Your task to perform on an android device: Do I have any events this weekend? Image 0: 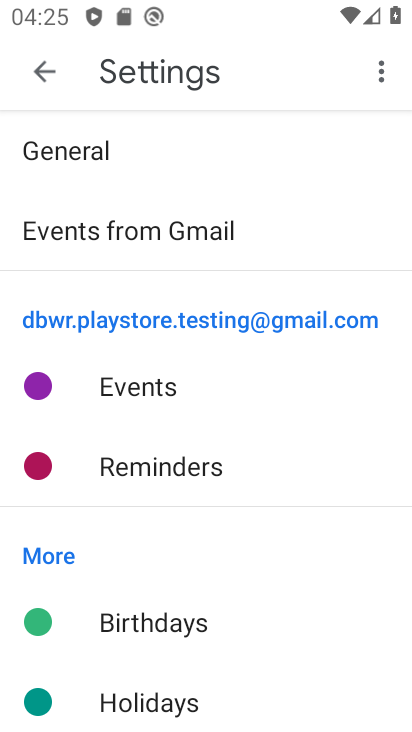
Step 0: press home button
Your task to perform on an android device: Do I have any events this weekend? Image 1: 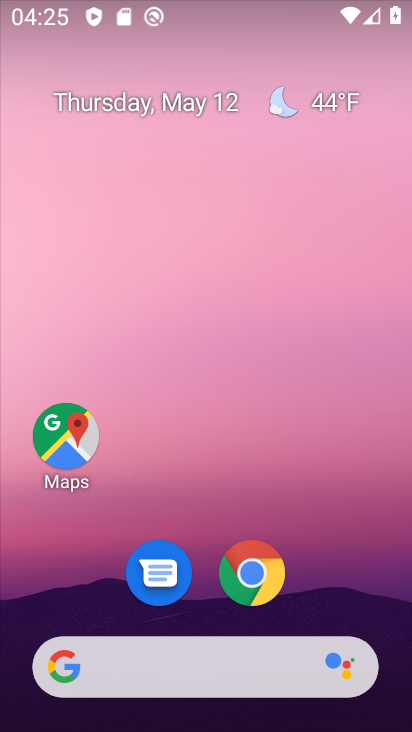
Step 1: click (388, 619)
Your task to perform on an android device: Do I have any events this weekend? Image 2: 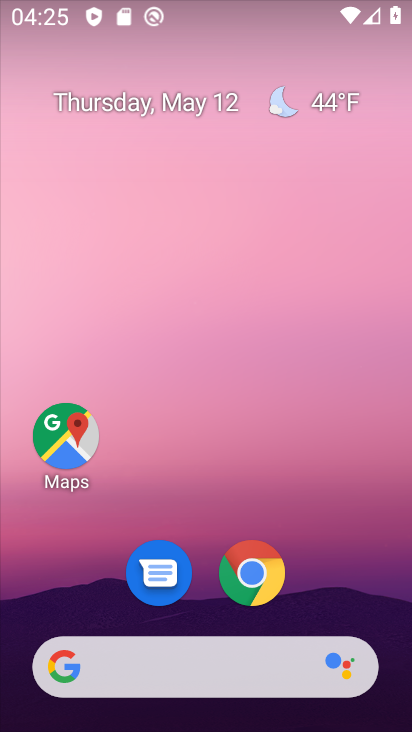
Step 2: drag from (388, 619) to (299, 78)
Your task to perform on an android device: Do I have any events this weekend? Image 3: 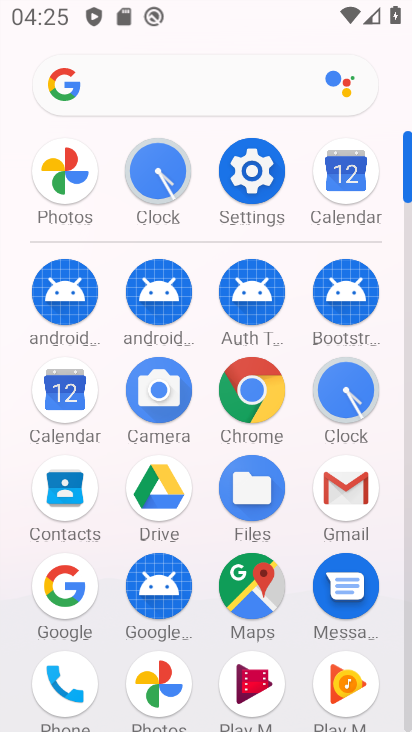
Step 3: click (65, 394)
Your task to perform on an android device: Do I have any events this weekend? Image 4: 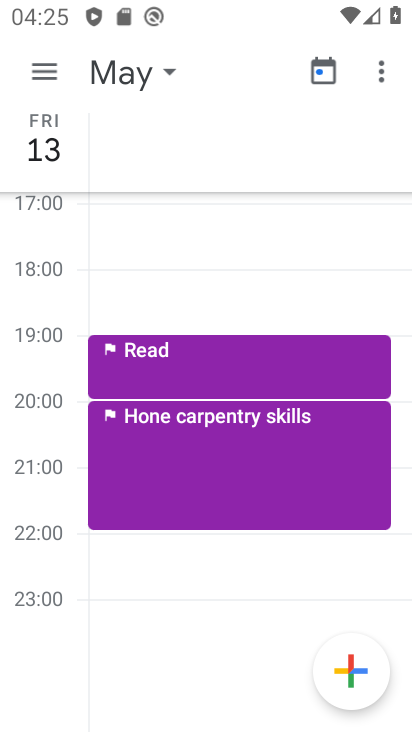
Step 4: click (51, 70)
Your task to perform on an android device: Do I have any events this weekend? Image 5: 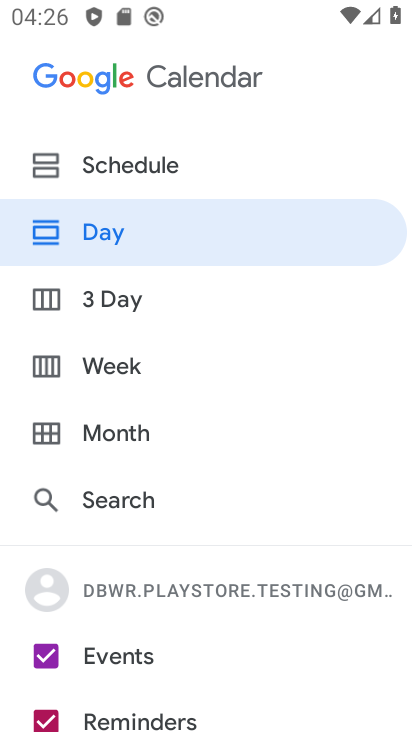
Step 5: click (104, 363)
Your task to perform on an android device: Do I have any events this weekend? Image 6: 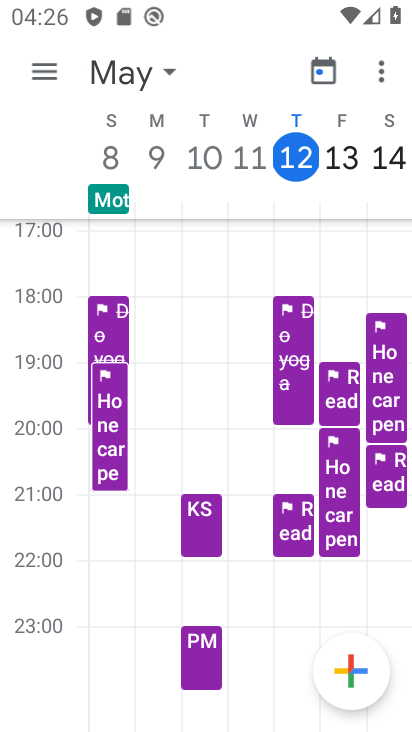
Step 6: task complete